Your task to perform on an android device: Search for sushi restaurants on Maps Image 0: 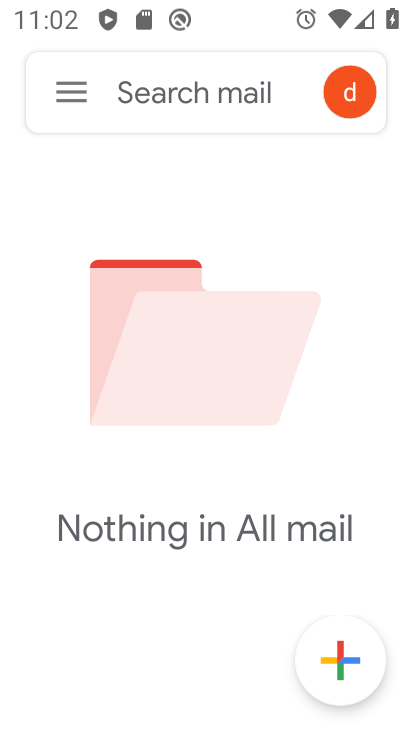
Step 0: press home button
Your task to perform on an android device: Search for sushi restaurants on Maps Image 1: 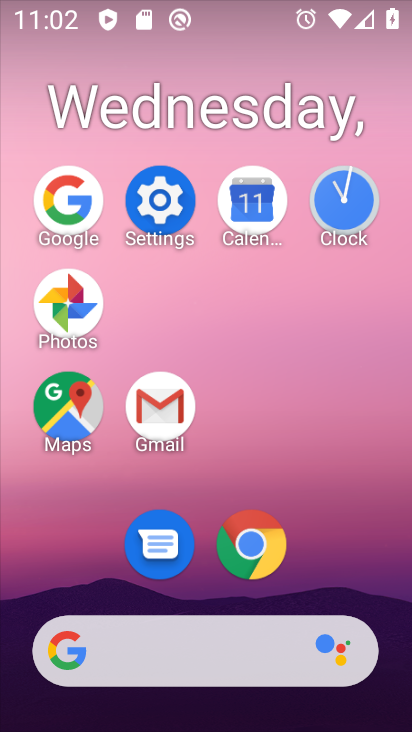
Step 1: click (79, 403)
Your task to perform on an android device: Search for sushi restaurants on Maps Image 2: 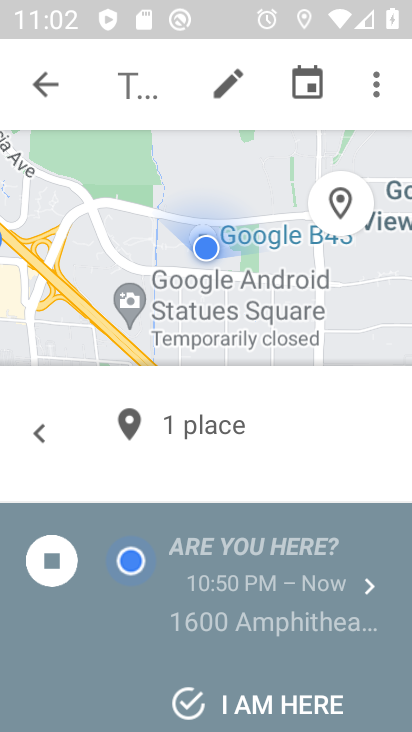
Step 2: click (176, 89)
Your task to perform on an android device: Search for sushi restaurants on Maps Image 3: 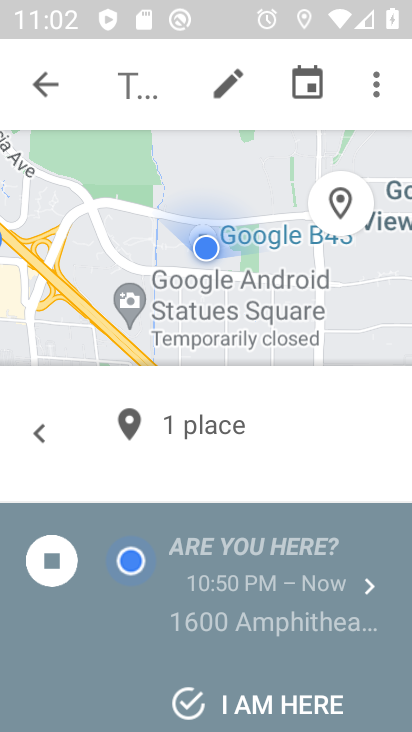
Step 3: click (48, 91)
Your task to perform on an android device: Search for sushi restaurants on Maps Image 4: 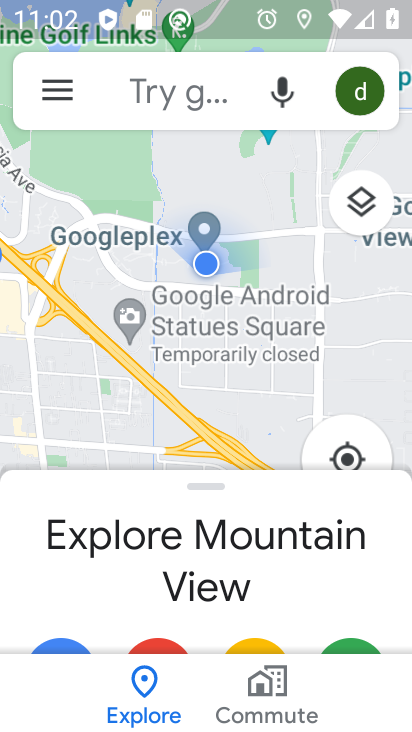
Step 4: click (188, 91)
Your task to perform on an android device: Search for sushi restaurants on Maps Image 5: 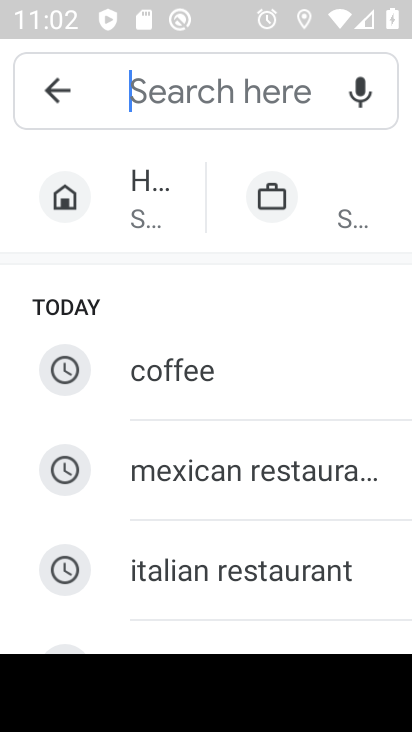
Step 5: drag from (271, 584) to (269, 199)
Your task to perform on an android device: Search for sushi restaurants on Maps Image 6: 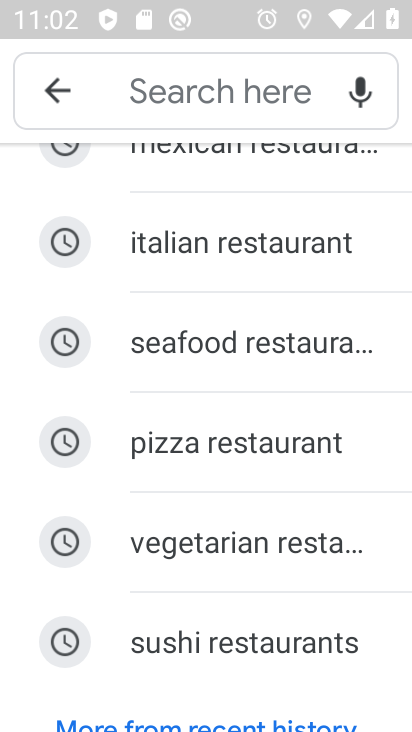
Step 6: click (224, 653)
Your task to perform on an android device: Search for sushi restaurants on Maps Image 7: 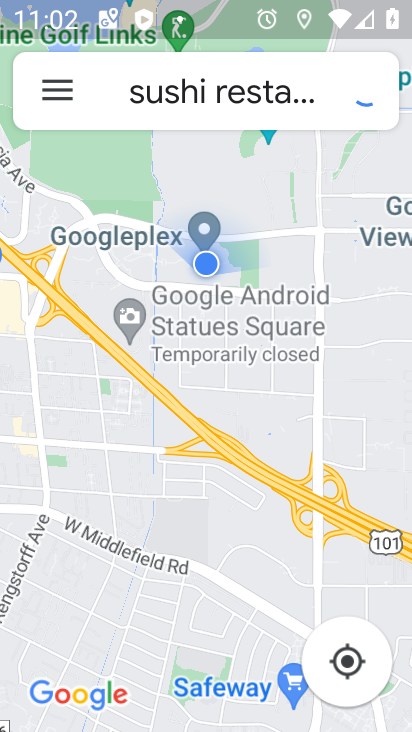
Step 7: task complete